Your task to perform on an android device: turn off improve location accuracy Image 0: 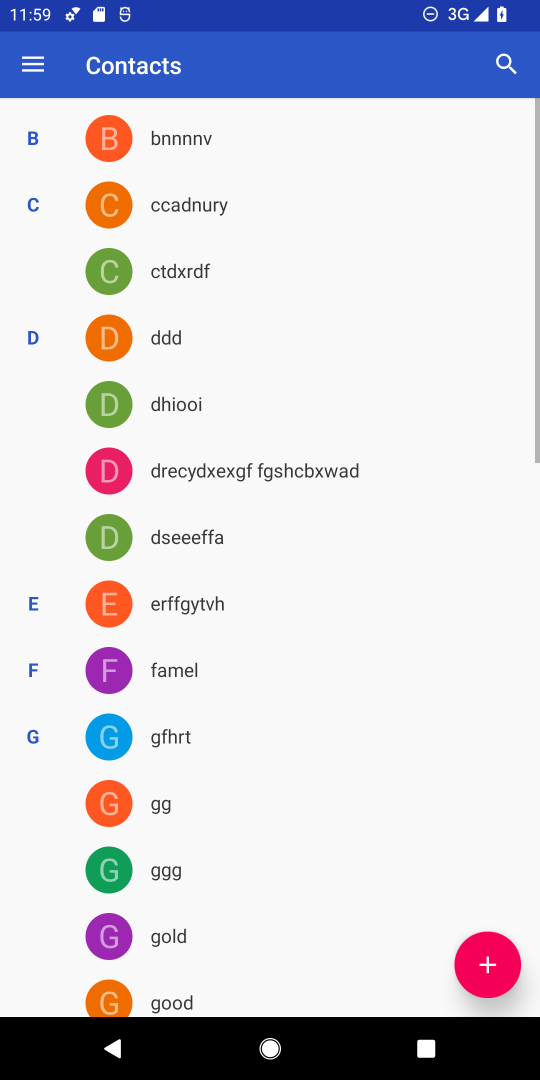
Step 0: press home button
Your task to perform on an android device: turn off improve location accuracy Image 1: 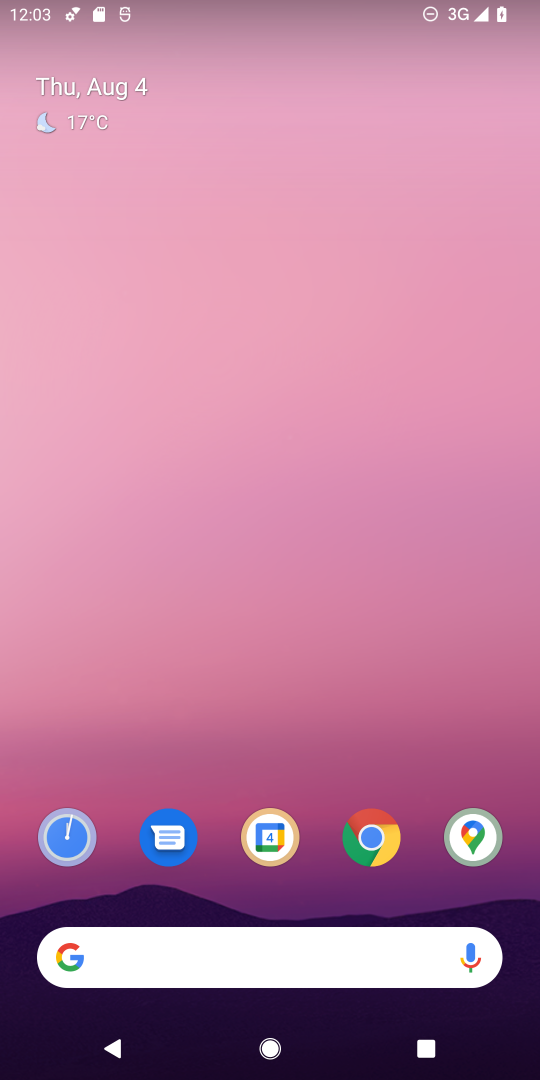
Step 1: drag from (389, 583) to (272, 172)
Your task to perform on an android device: turn off improve location accuracy Image 2: 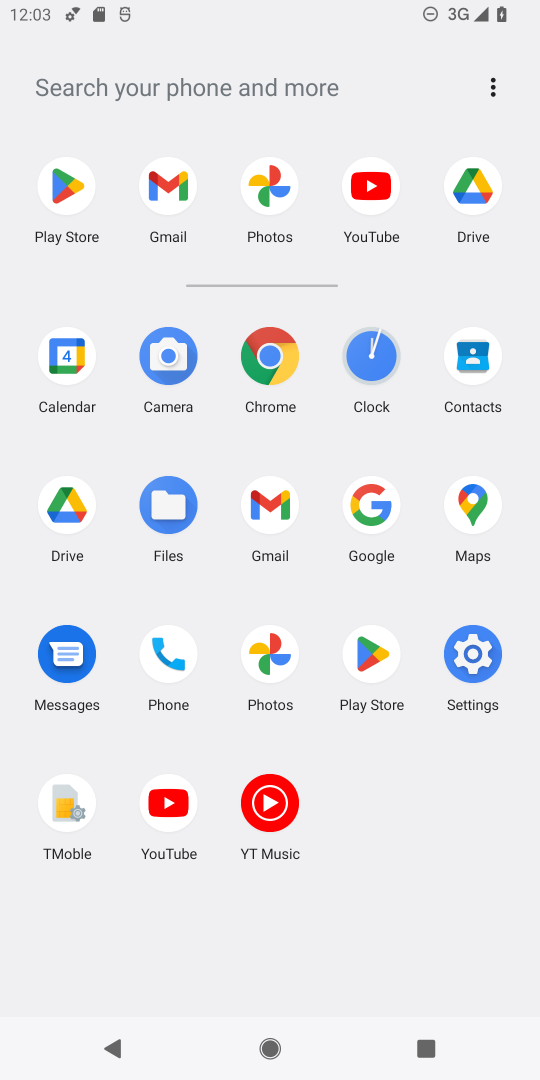
Step 2: click (465, 671)
Your task to perform on an android device: turn off improve location accuracy Image 3: 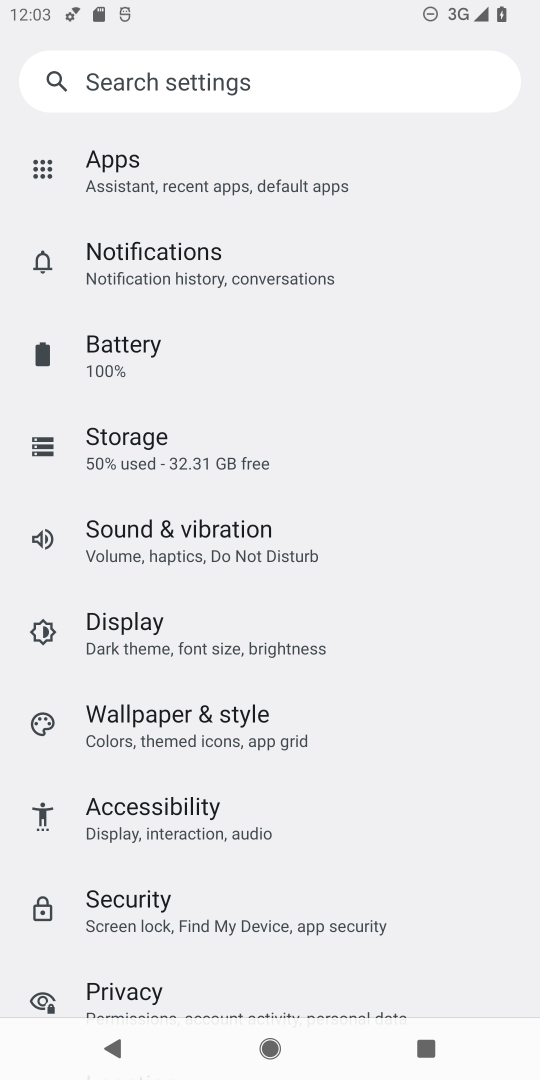
Step 3: drag from (195, 938) to (232, 345)
Your task to perform on an android device: turn off improve location accuracy Image 4: 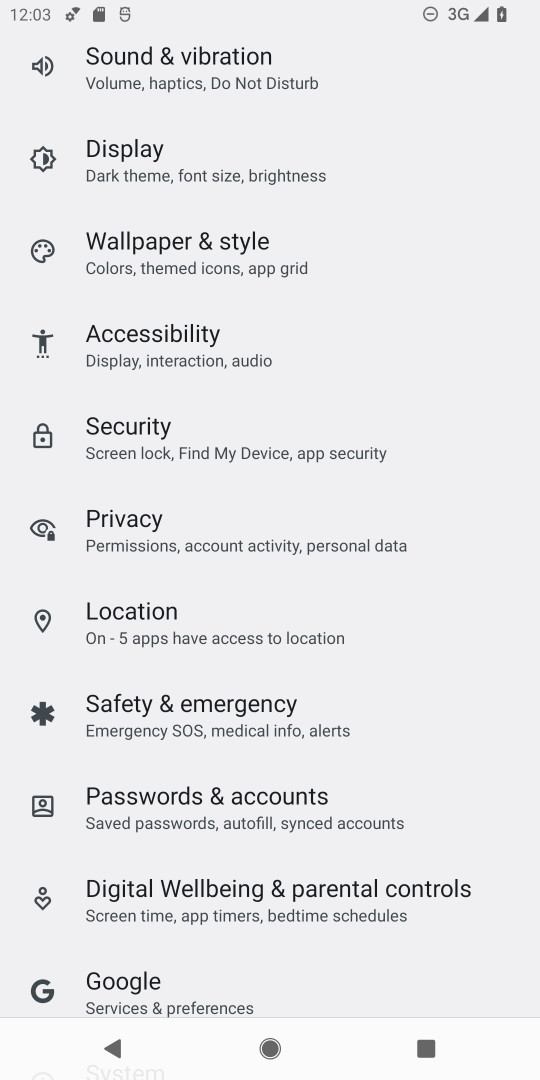
Step 4: click (152, 616)
Your task to perform on an android device: turn off improve location accuracy Image 5: 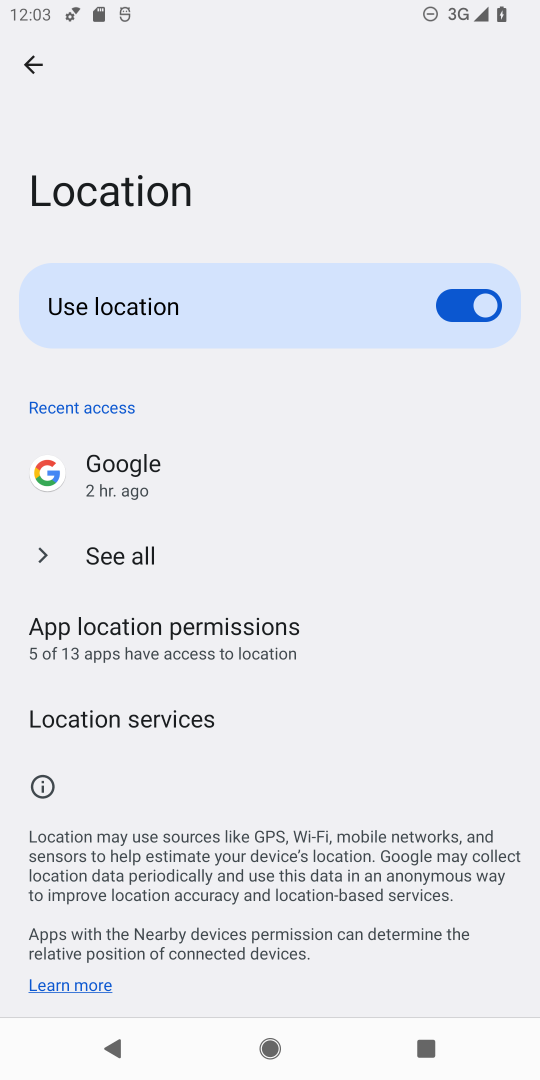
Step 5: click (148, 716)
Your task to perform on an android device: turn off improve location accuracy Image 6: 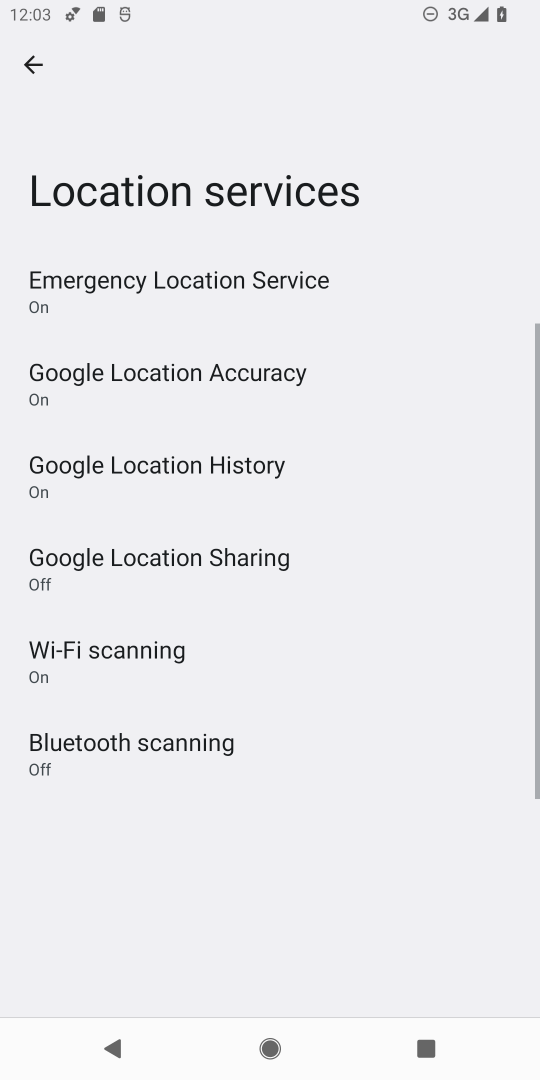
Step 6: click (268, 397)
Your task to perform on an android device: turn off improve location accuracy Image 7: 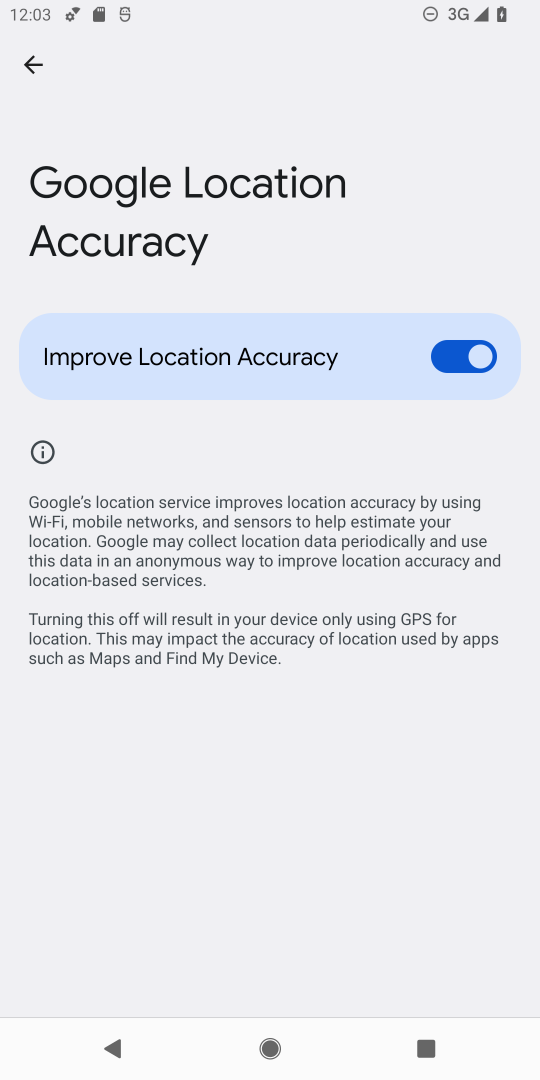
Step 7: click (456, 352)
Your task to perform on an android device: turn off improve location accuracy Image 8: 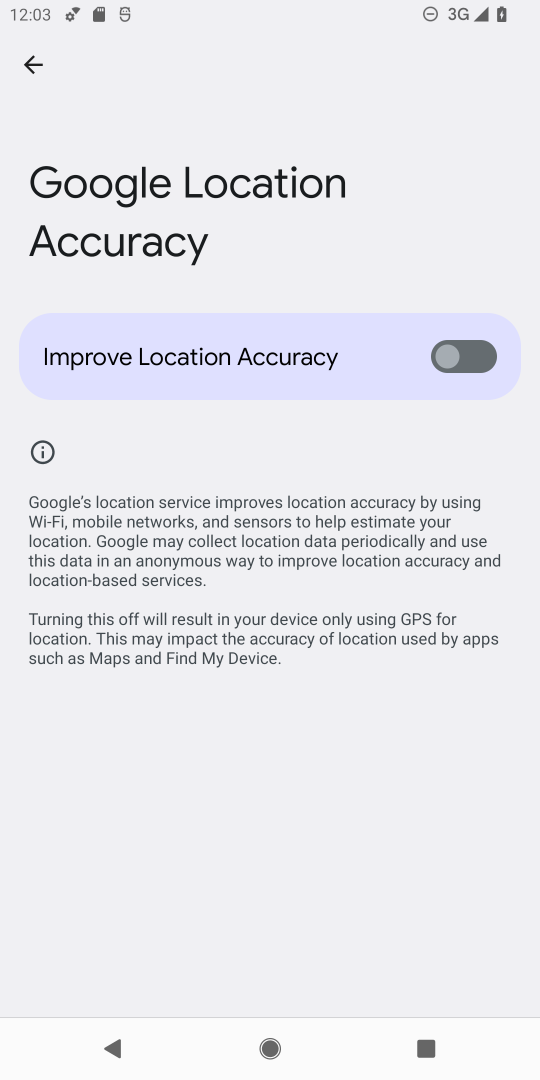
Step 8: task complete